Your task to perform on an android device: check out phone information Image 0: 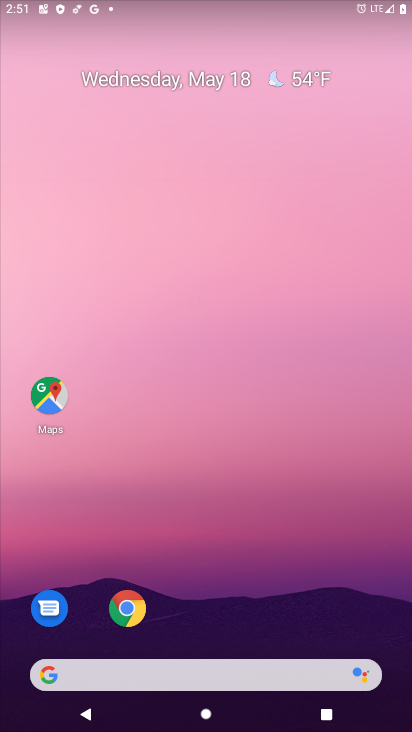
Step 0: drag from (306, 606) to (343, 7)
Your task to perform on an android device: check out phone information Image 1: 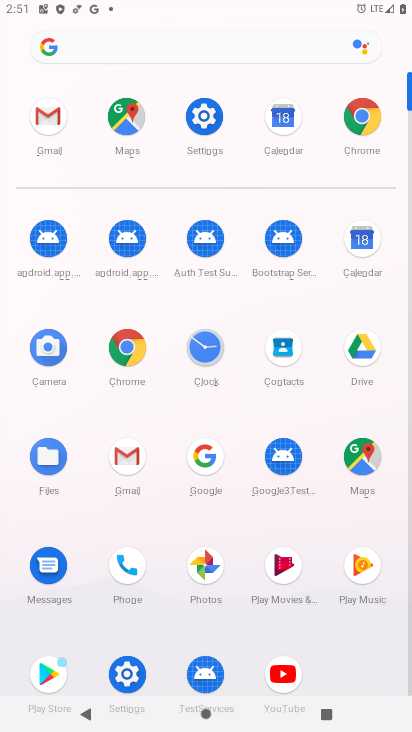
Step 1: click (200, 124)
Your task to perform on an android device: check out phone information Image 2: 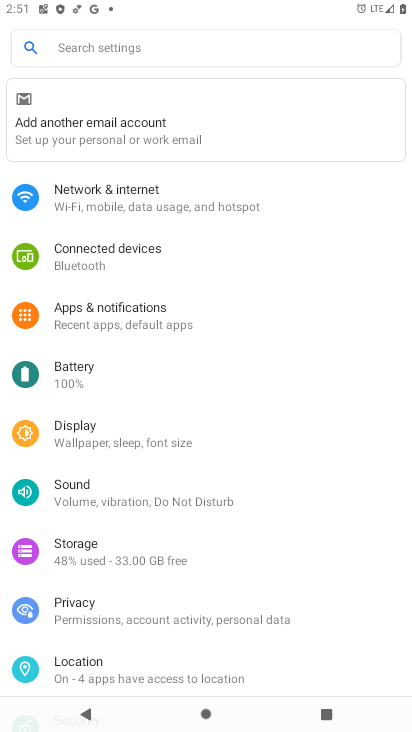
Step 2: drag from (329, 618) to (316, 215)
Your task to perform on an android device: check out phone information Image 3: 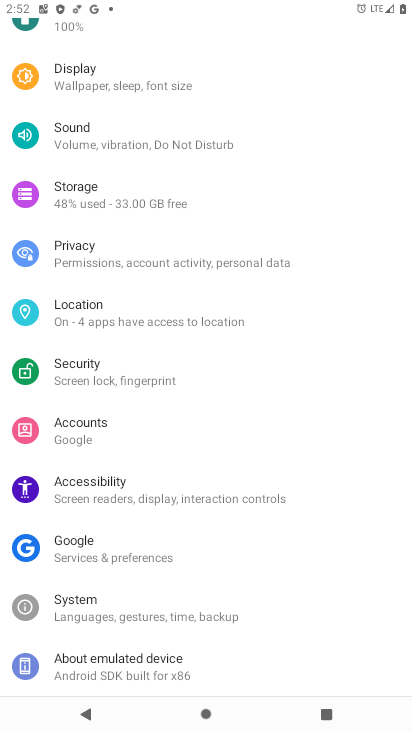
Step 3: drag from (386, 577) to (367, 363)
Your task to perform on an android device: check out phone information Image 4: 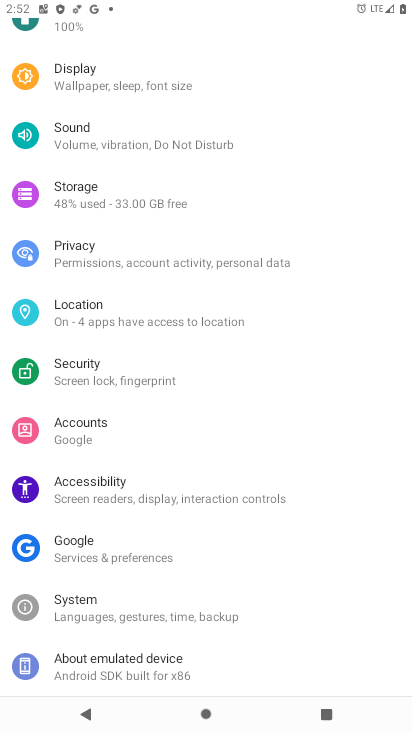
Step 4: click (139, 662)
Your task to perform on an android device: check out phone information Image 5: 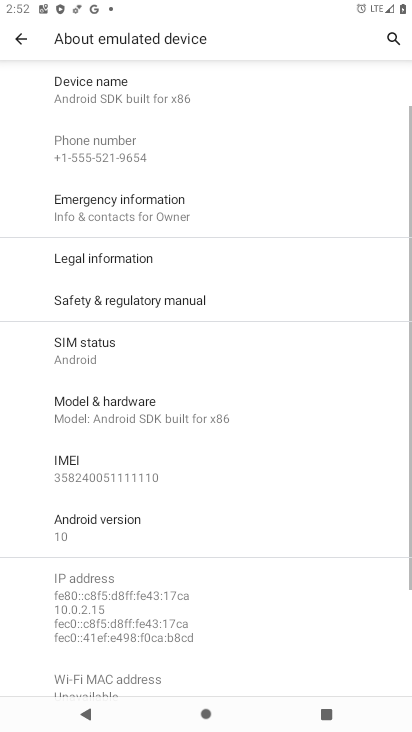
Step 5: task complete